Your task to perform on an android device: set the stopwatch Image 0: 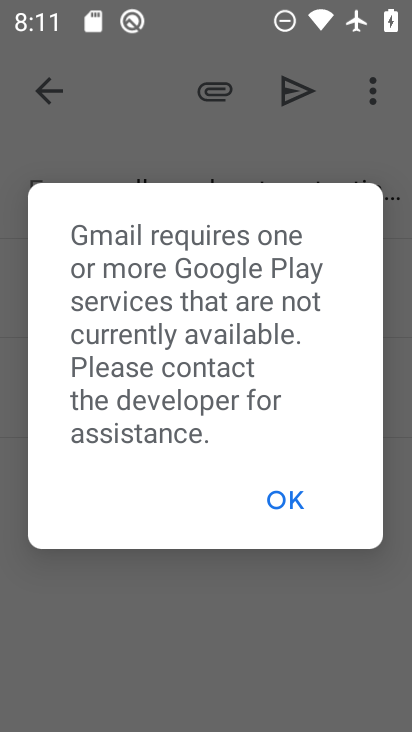
Step 0: press home button
Your task to perform on an android device: set the stopwatch Image 1: 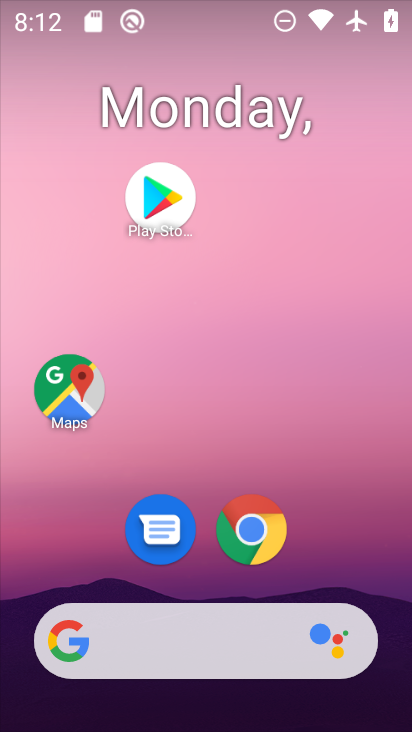
Step 1: drag from (309, 476) to (280, 7)
Your task to perform on an android device: set the stopwatch Image 2: 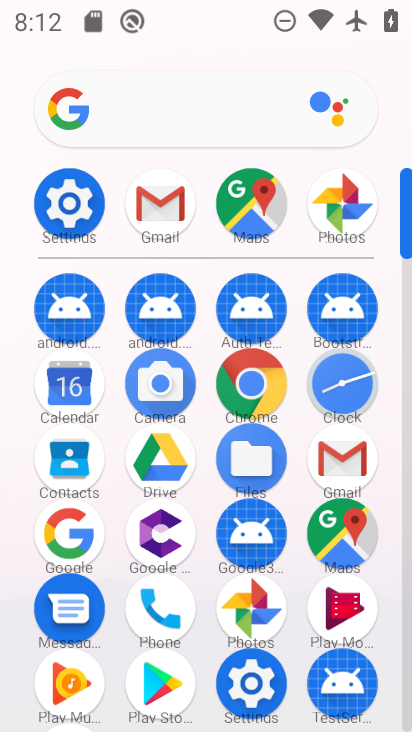
Step 2: click (341, 379)
Your task to perform on an android device: set the stopwatch Image 3: 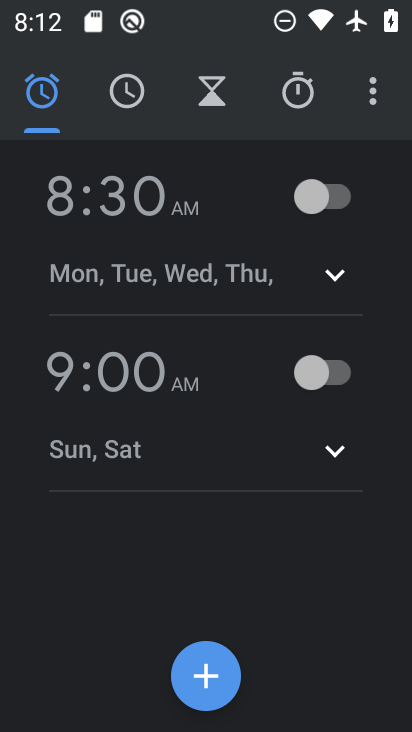
Step 3: click (289, 87)
Your task to perform on an android device: set the stopwatch Image 4: 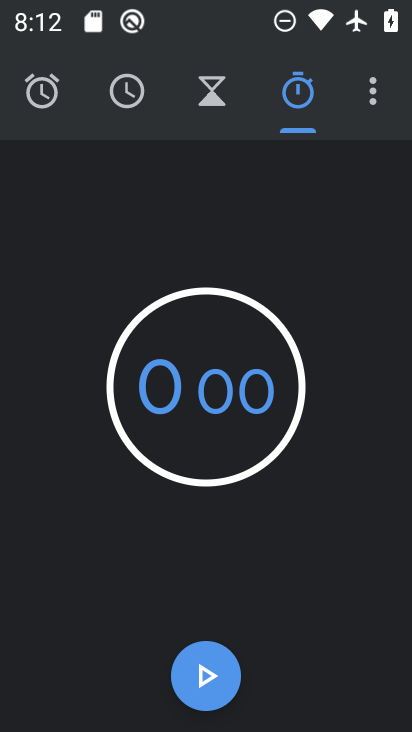
Step 4: task complete